Your task to perform on an android device: check google app version Image 0: 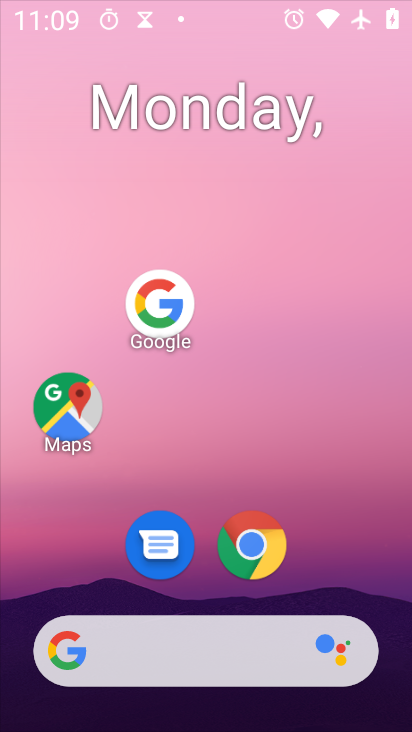
Step 0: click (330, 120)
Your task to perform on an android device: check google app version Image 1: 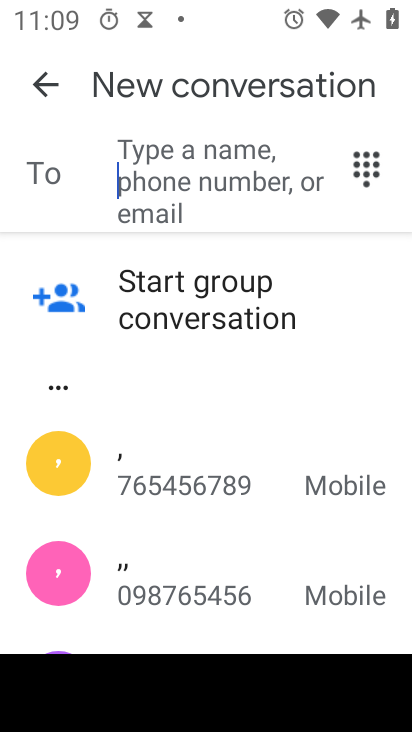
Step 1: press home button
Your task to perform on an android device: check google app version Image 2: 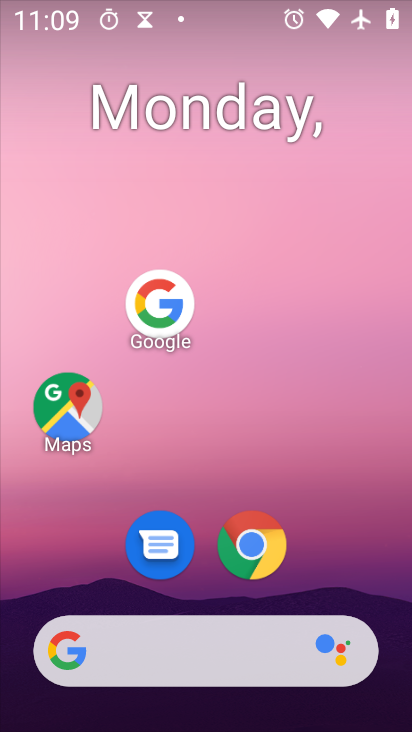
Step 2: drag from (226, 657) to (310, 156)
Your task to perform on an android device: check google app version Image 3: 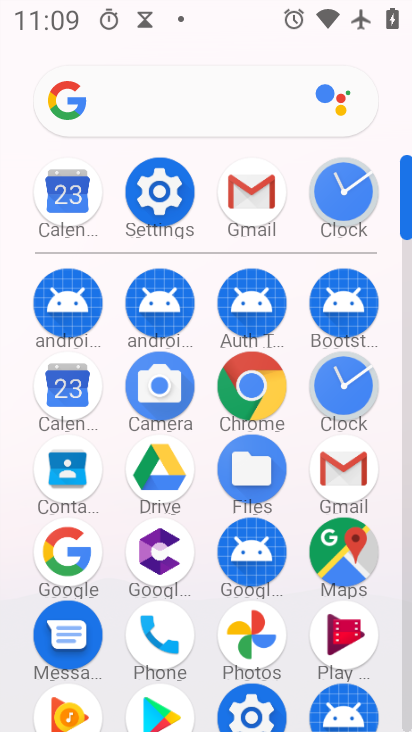
Step 3: click (87, 555)
Your task to perform on an android device: check google app version Image 4: 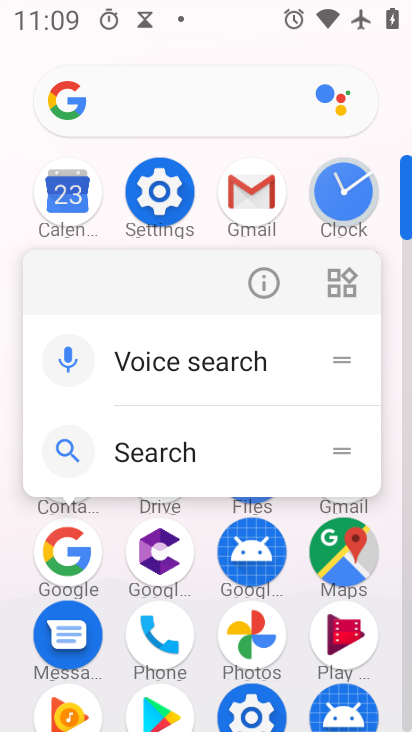
Step 4: click (267, 283)
Your task to perform on an android device: check google app version Image 5: 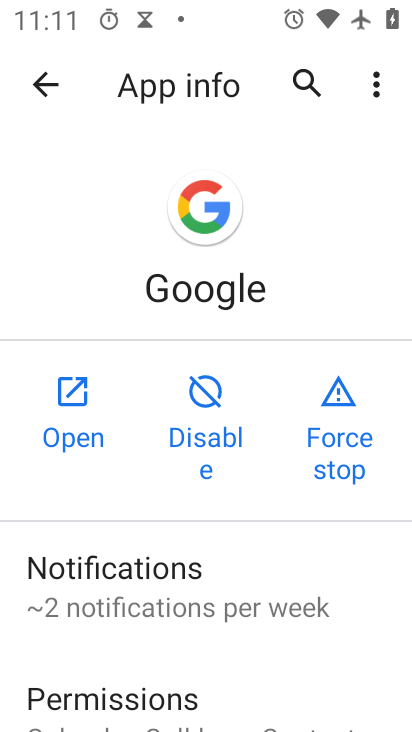
Step 5: drag from (164, 590) to (330, 123)
Your task to perform on an android device: check google app version Image 6: 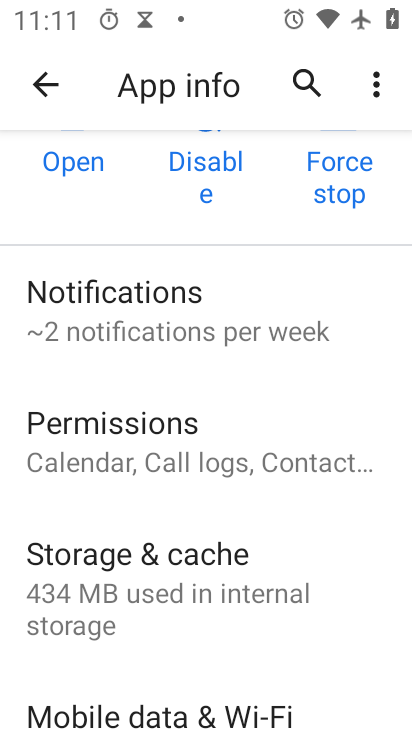
Step 6: drag from (169, 654) to (356, 183)
Your task to perform on an android device: check google app version Image 7: 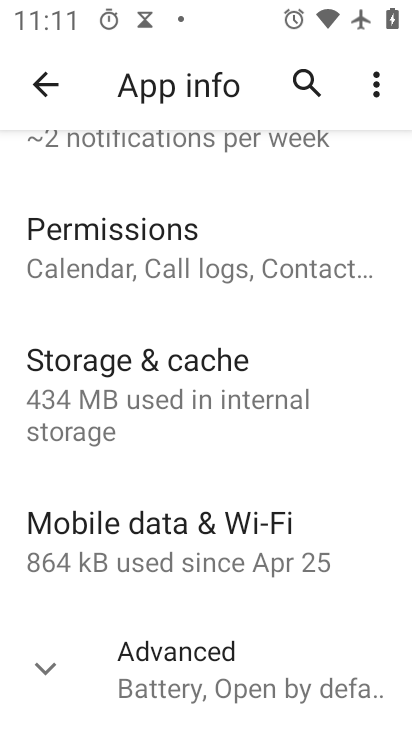
Step 7: click (174, 665)
Your task to perform on an android device: check google app version Image 8: 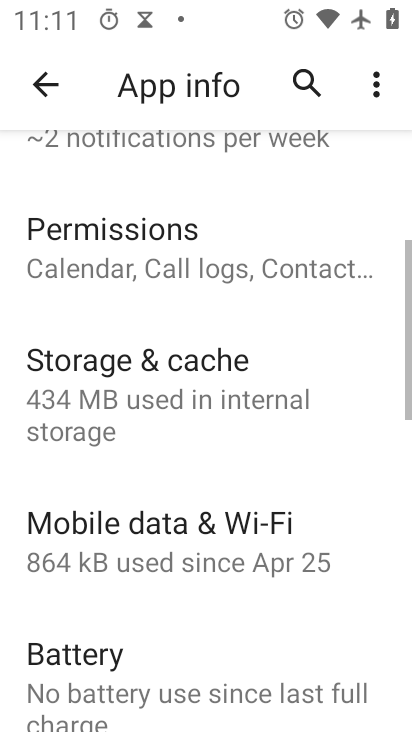
Step 8: task complete